Your task to perform on an android device: Open the phone app and click the voicemail tab. Image 0: 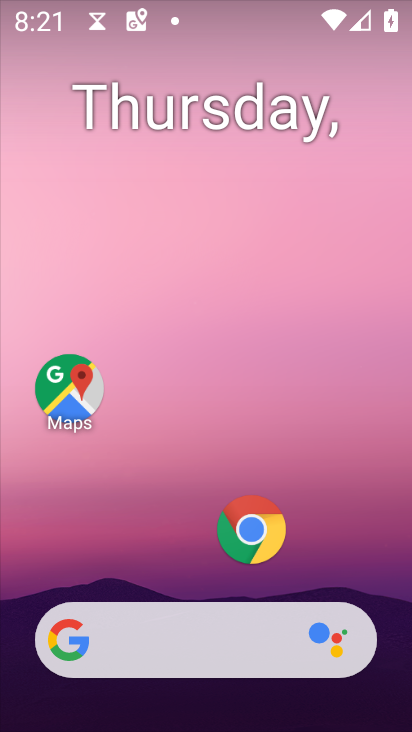
Step 0: press home button
Your task to perform on an android device: Open the phone app and click the voicemail tab. Image 1: 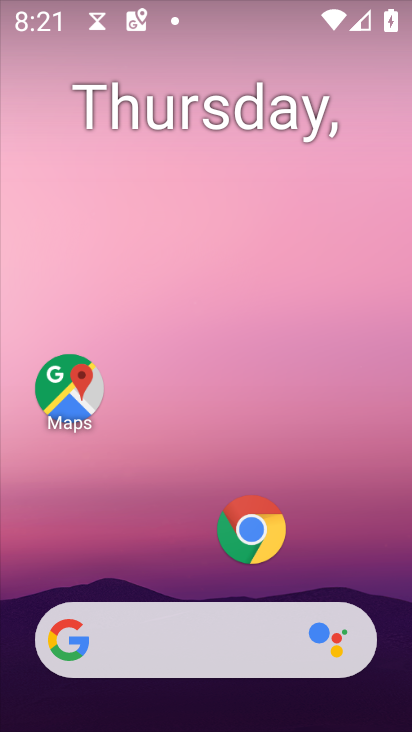
Step 1: drag from (193, 589) to (219, 100)
Your task to perform on an android device: Open the phone app and click the voicemail tab. Image 2: 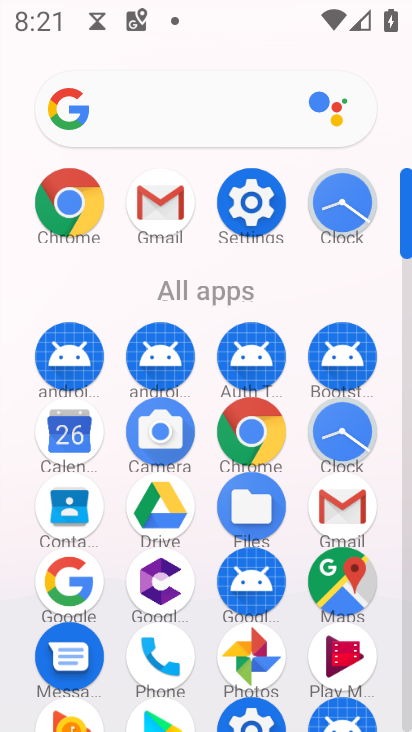
Step 2: click (157, 647)
Your task to perform on an android device: Open the phone app and click the voicemail tab. Image 3: 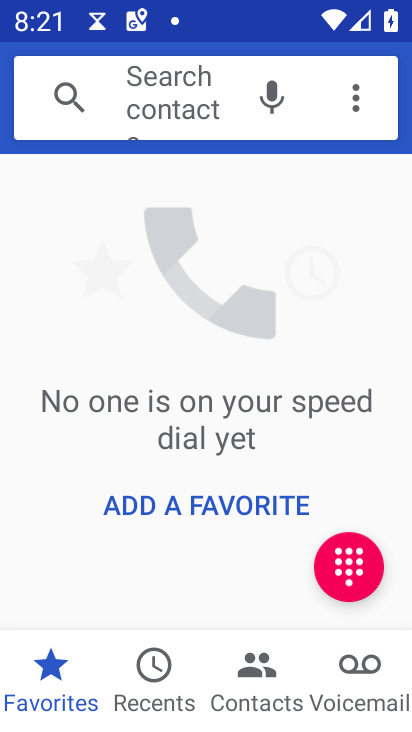
Step 3: click (357, 664)
Your task to perform on an android device: Open the phone app and click the voicemail tab. Image 4: 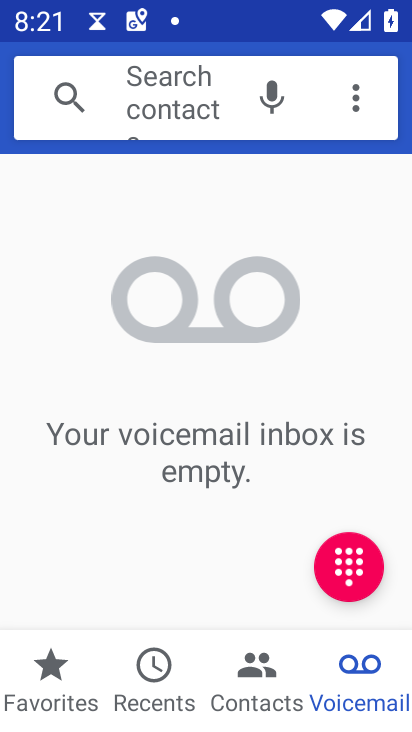
Step 4: task complete